Your task to perform on an android device: open a new tab in the chrome app Image 0: 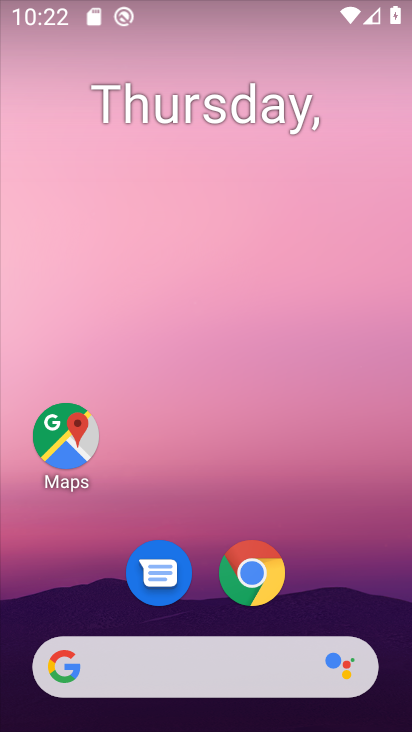
Step 0: click (235, 561)
Your task to perform on an android device: open a new tab in the chrome app Image 1: 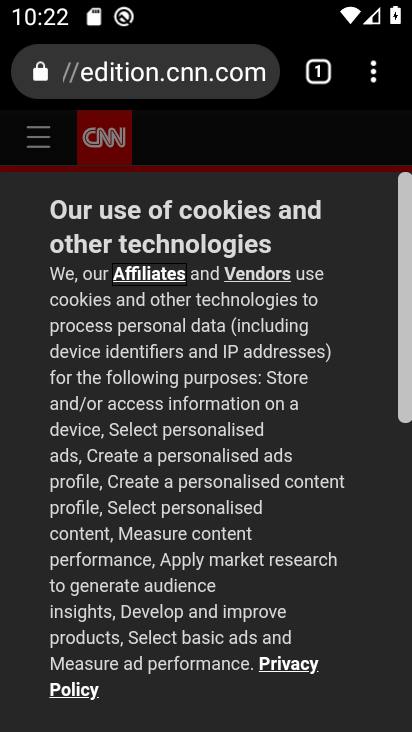
Step 1: click (320, 80)
Your task to perform on an android device: open a new tab in the chrome app Image 2: 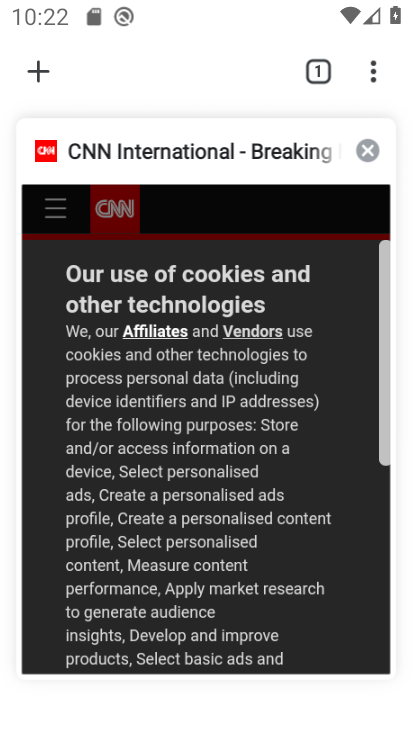
Step 2: click (34, 75)
Your task to perform on an android device: open a new tab in the chrome app Image 3: 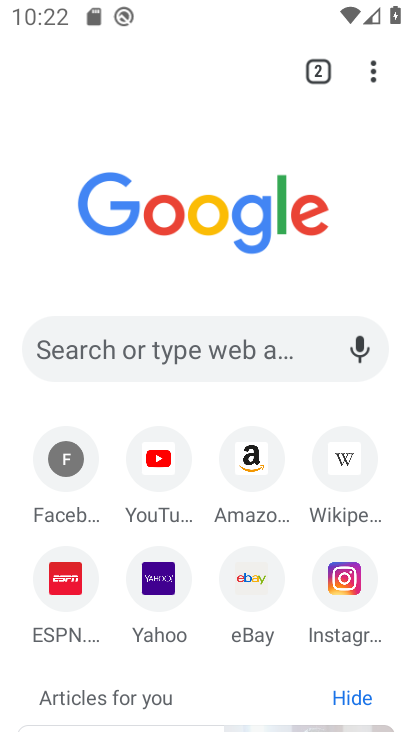
Step 3: task complete